Your task to perform on an android device: Open calendar and show me the third week of next month Image 0: 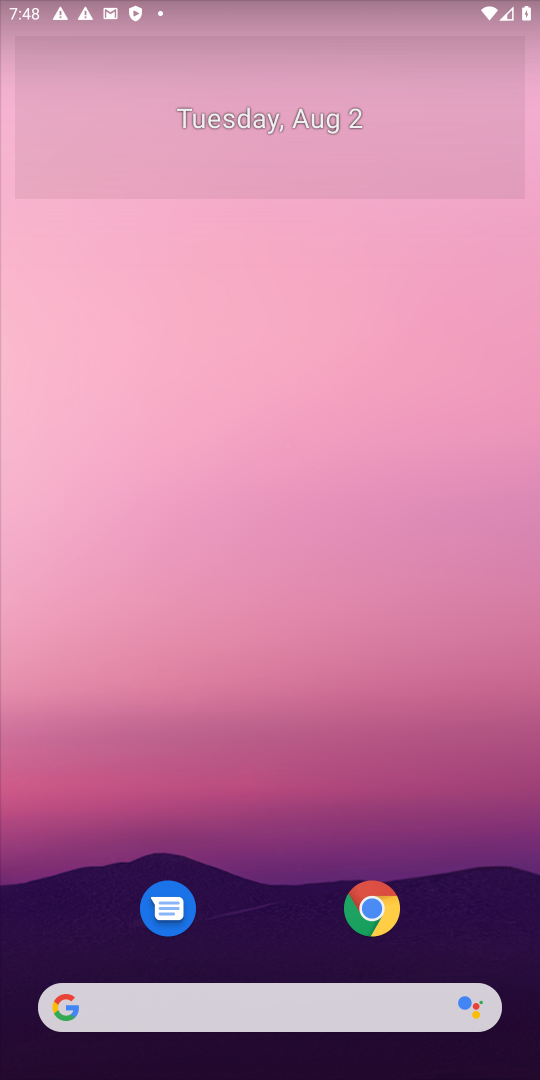
Step 0: drag from (212, 768) to (297, 0)
Your task to perform on an android device: Open calendar and show me the third week of next month Image 1: 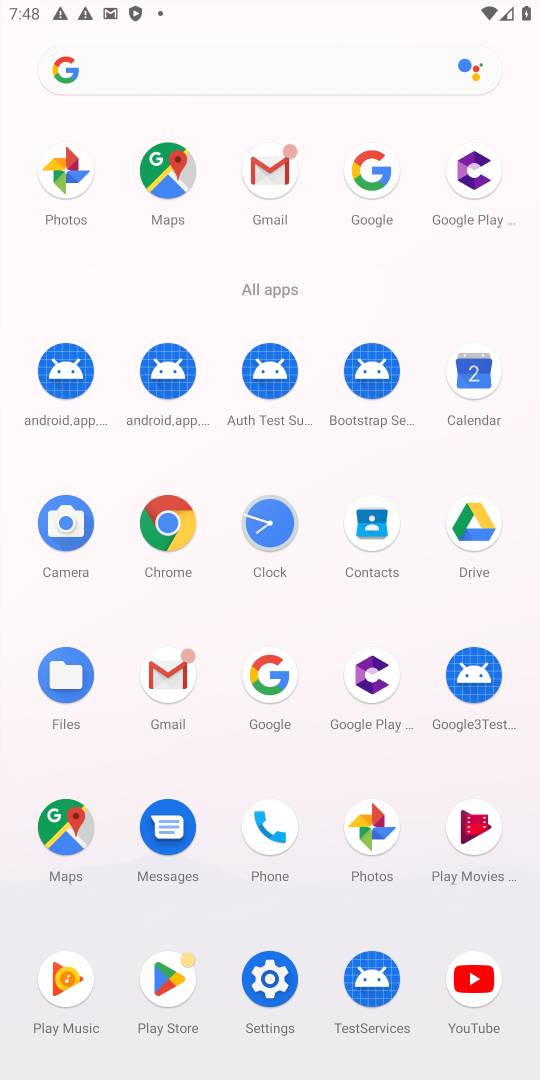
Step 1: click (483, 389)
Your task to perform on an android device: Open calendar and show me the third week of next month Image 2: 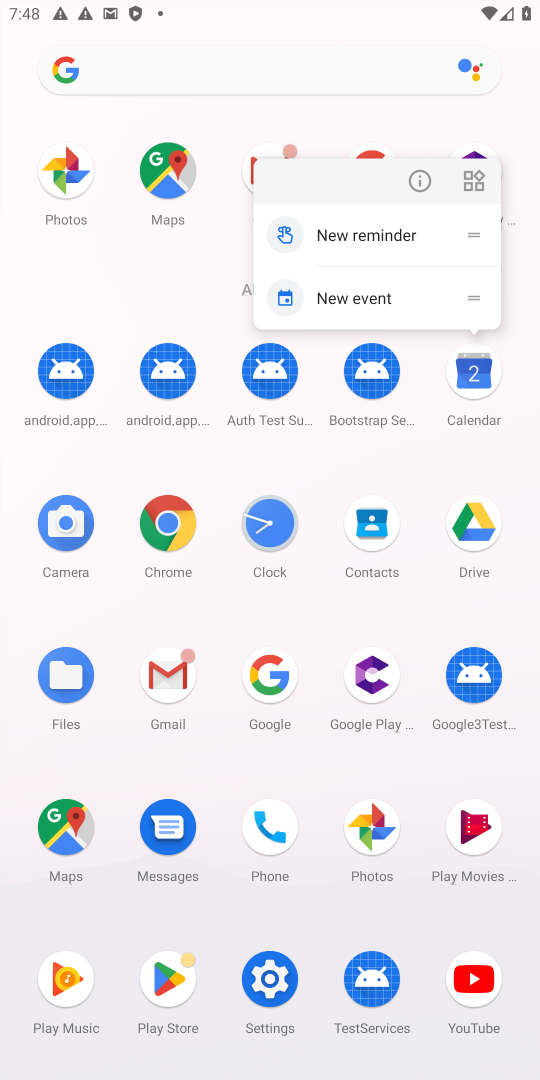
Step 2: click (483, 389)
Your task to perform on an android device: Open calendar and show me the third week of next month Image 3: 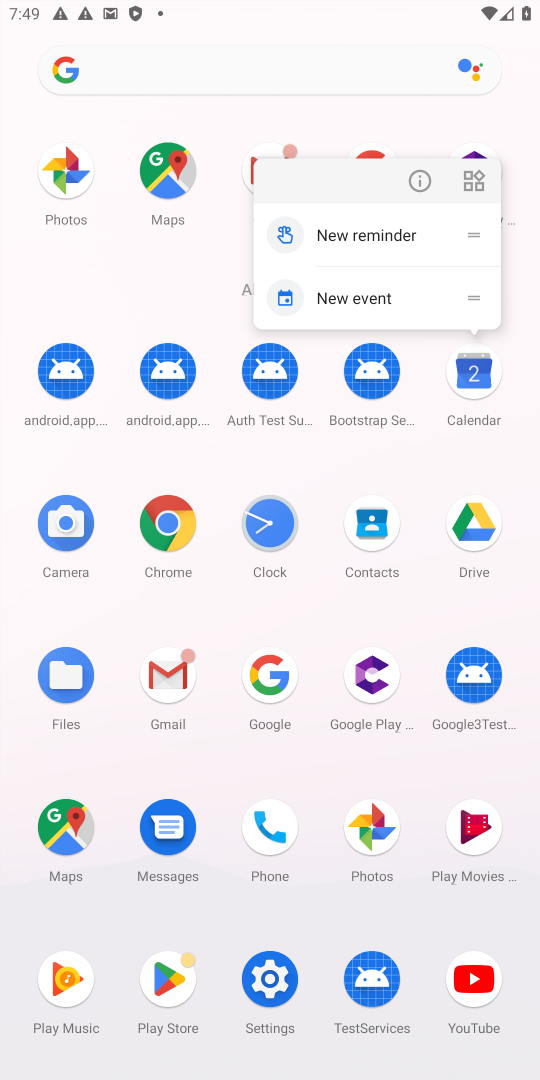
Step 3: click (486, 374)
Your task to perform on an android device: Open calendar and show me the third week of next month Image 4: 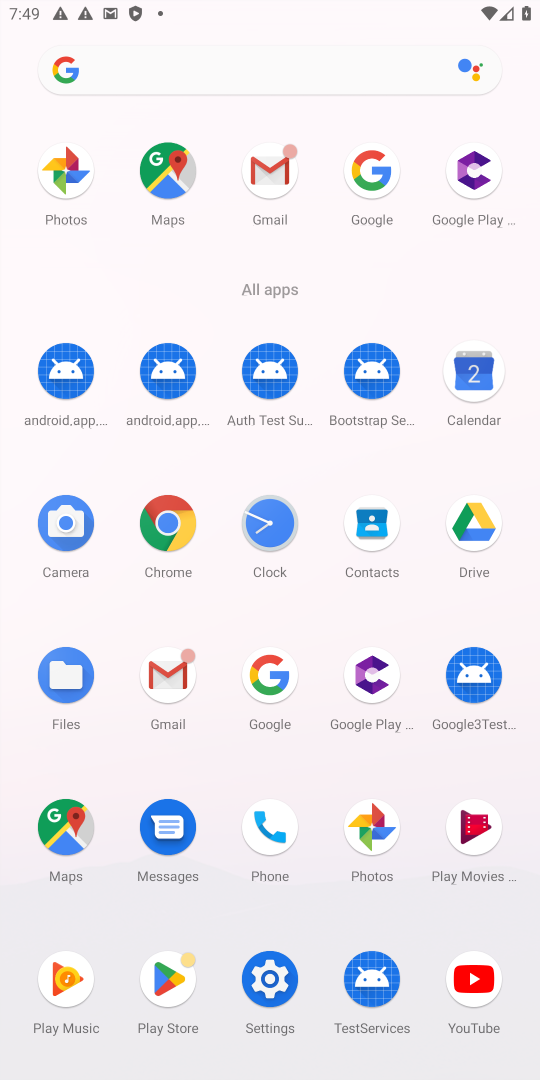
Step 4: click (486, 374)
Your task to perform on an android device: Open calendar and show me the third week of next month Image 5: 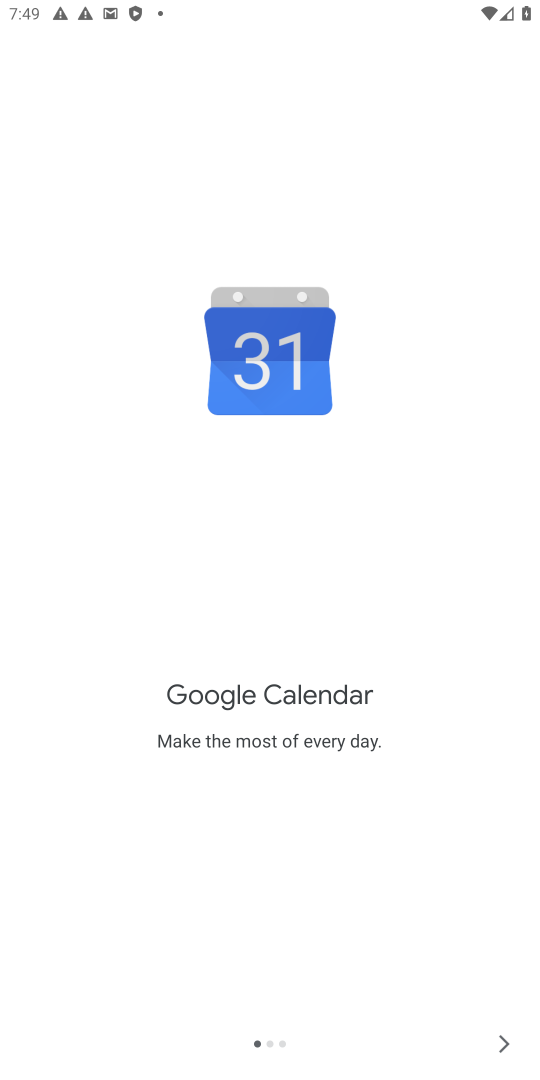
Step 5: click (502, 1033)
Your task to perform on an android device: Open calendar and show me the third week of next month Image 6: 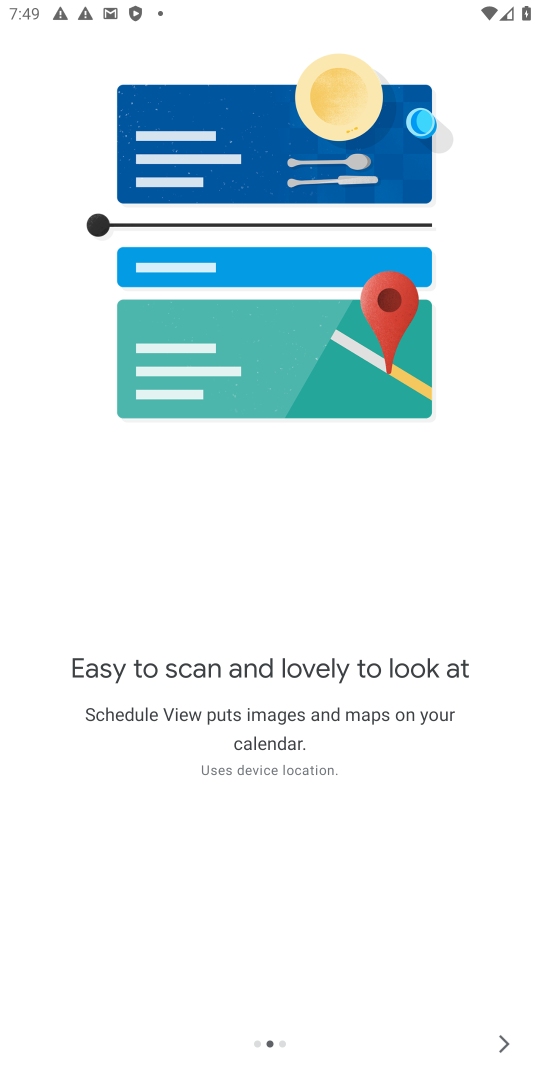
Step 6: click (502, 1033)
Your task to perform on an android device: Open calendar and show me the third week of next month Image 7: 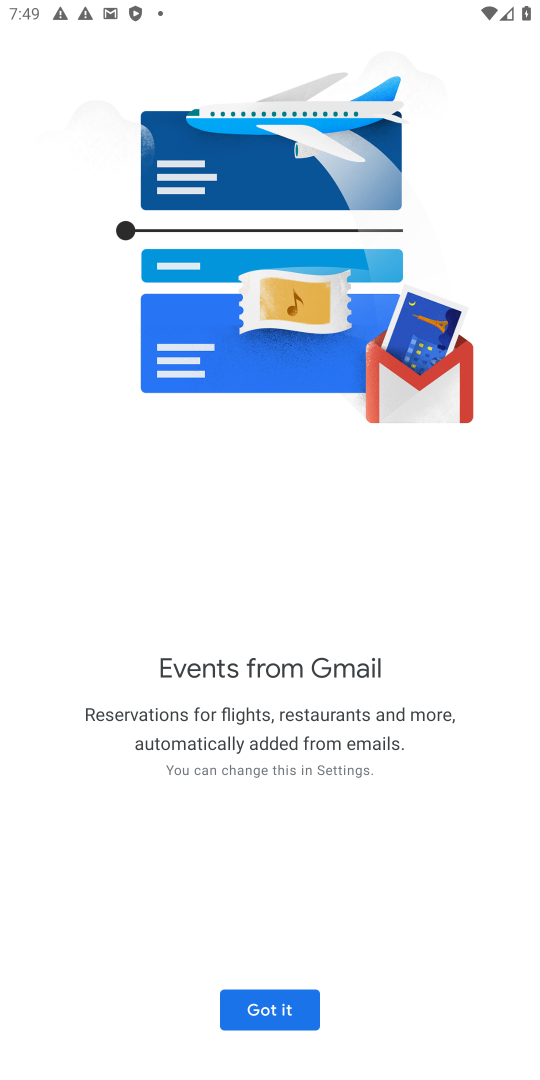
Step 7: click (275, 1002)
Your task to perform on an android device: Open calendar and show me the third week of next month Image 8: 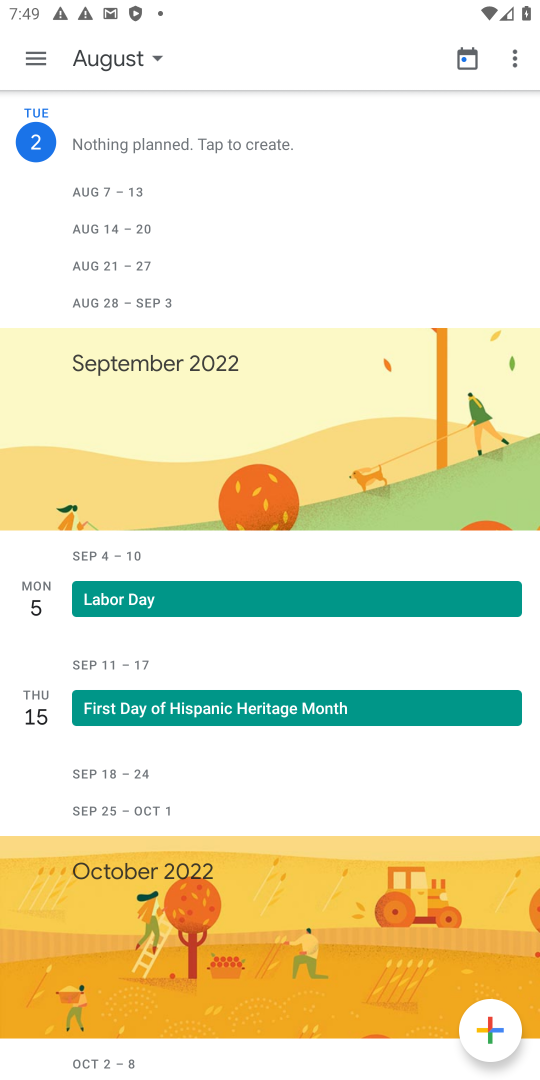
Step 8: click (95, 64)
Your task to perform on an android device: Open calendar and show me the third week of next month Image 9: 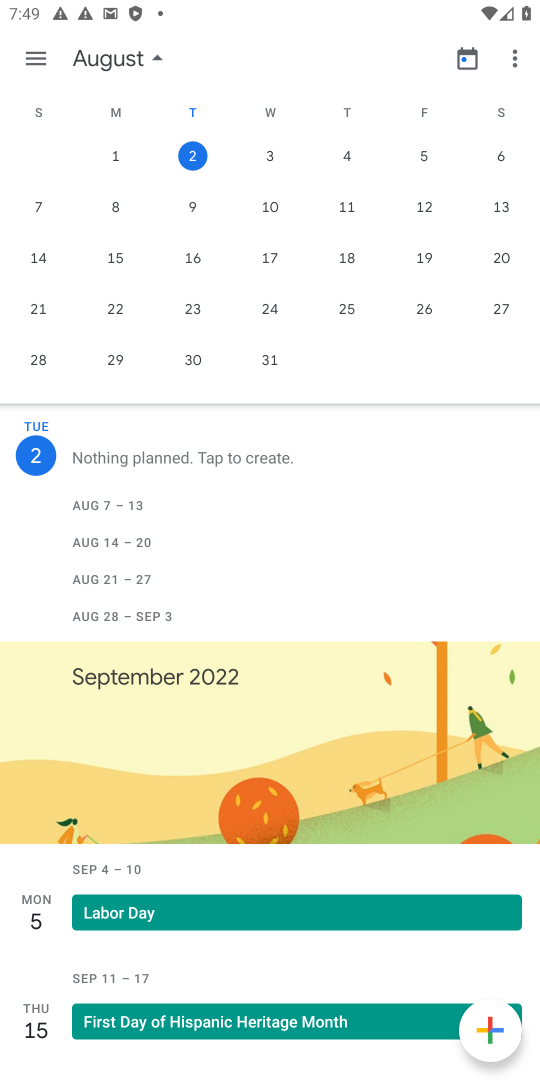
Step 9: drag from (486, 223) to (34, 157)
Your task to perform on an android device: Open calendar and show me the third week of next month Image 10: 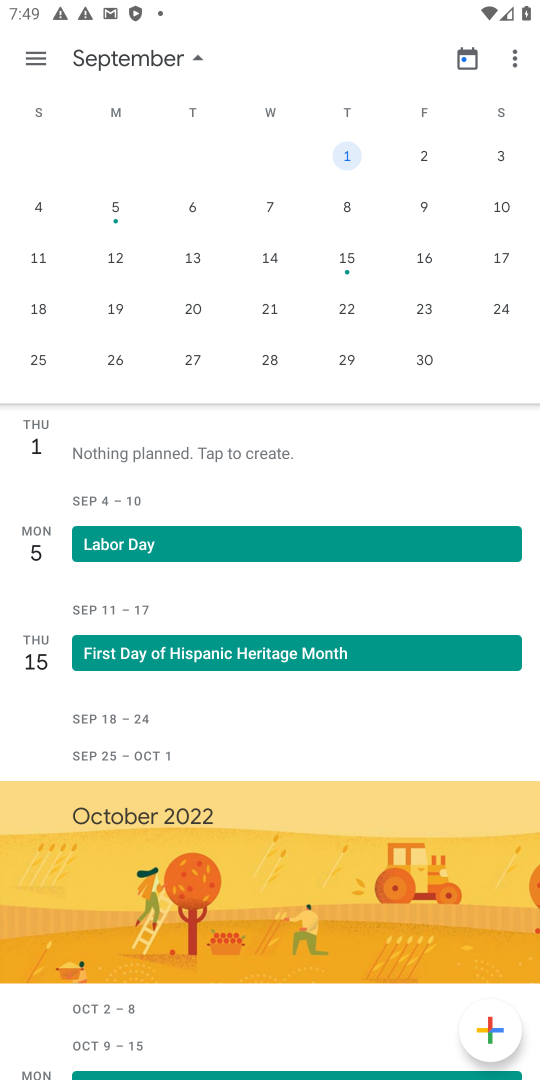
Step 10: click (39, 256)
Your task to perform on an android device: Open calendar and show me the third week of next month Image 11: 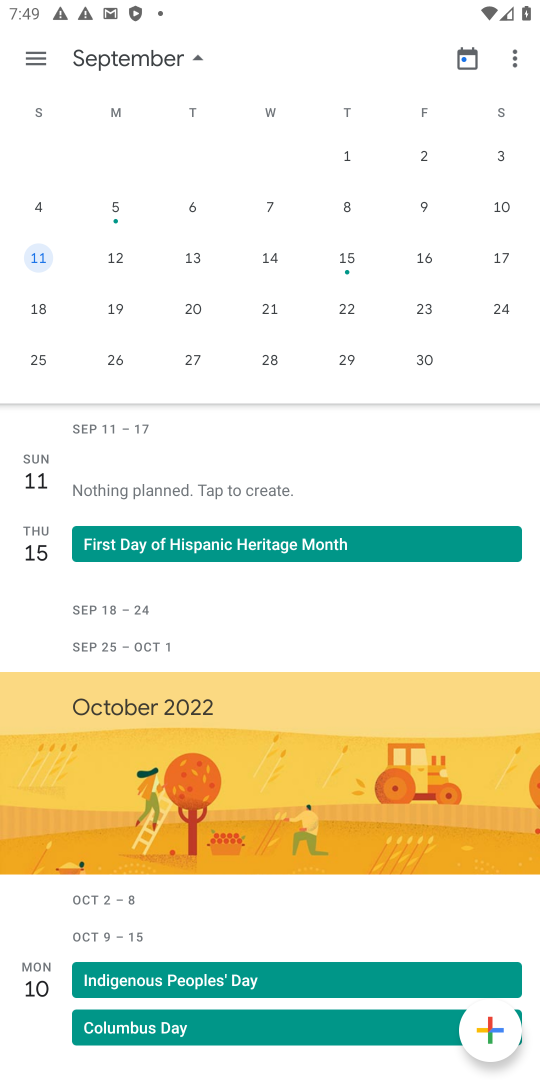
Step 11: task complete